Your task to perform on an android device: turn notification dots off Image 0: 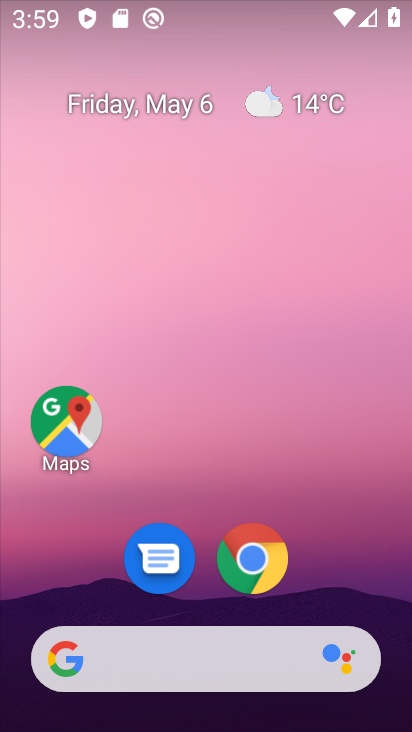
Step 0: drag from (358, 504) to (287, 59)
Your task to perform on an android device: turn notification dots off Image 1: 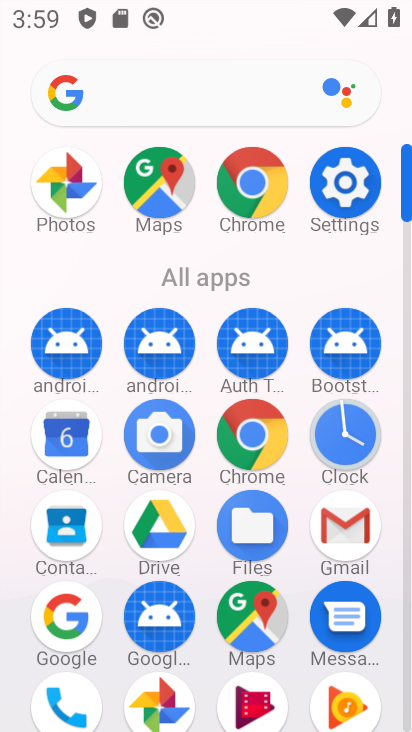
Step 1: click (348, 194)
Your task to perform on an android device: turn notification dots off Image 2: 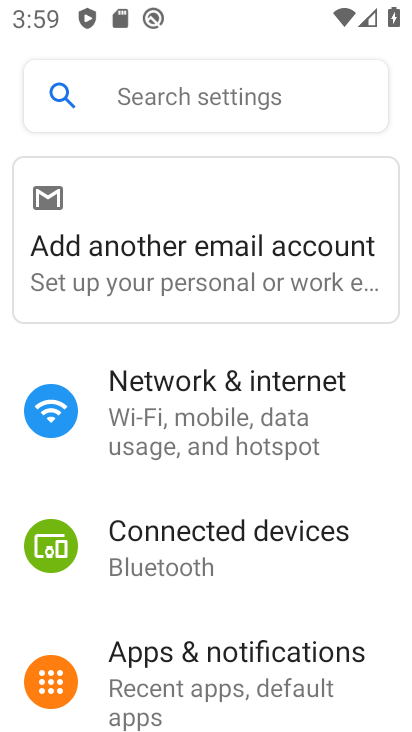
Step 2: click (289, 656)
Your task to perform on an android device: turn notification dots off Image 3: 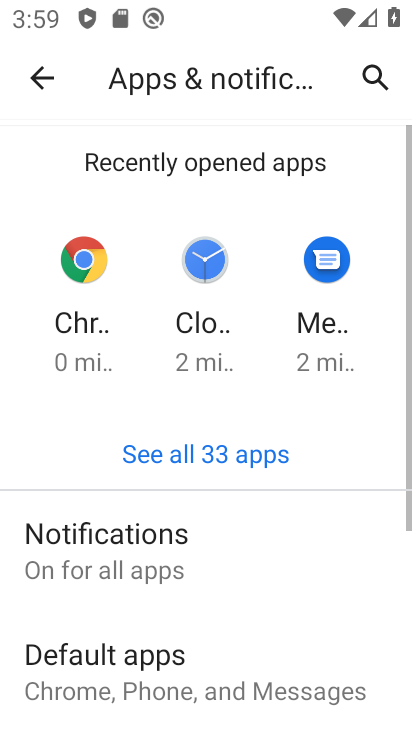
Step 3: drag from (210, 674) to (199, 178)
Your task to perform on an android device: turn notification dots off Image 4: 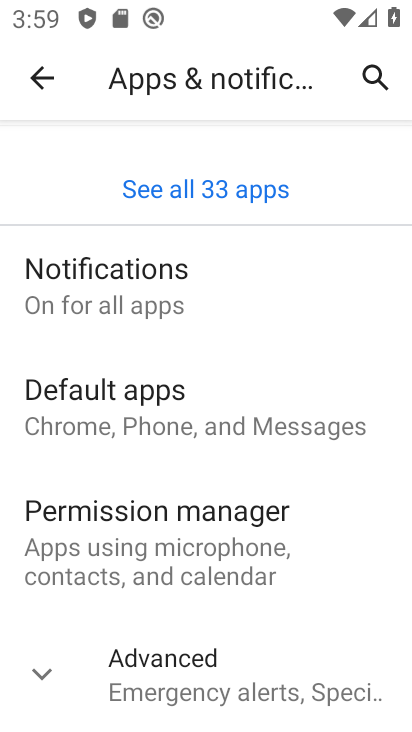
Step 4: click (224, 670)
Your task to perform on an android device: turn notification dots off Image 5: 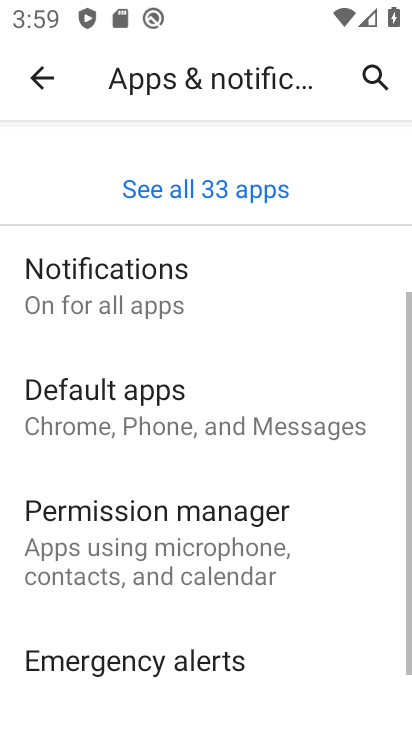
Step 5: click (86, 293)
Your task to perform on an android device: turn notification dots off Image 6: 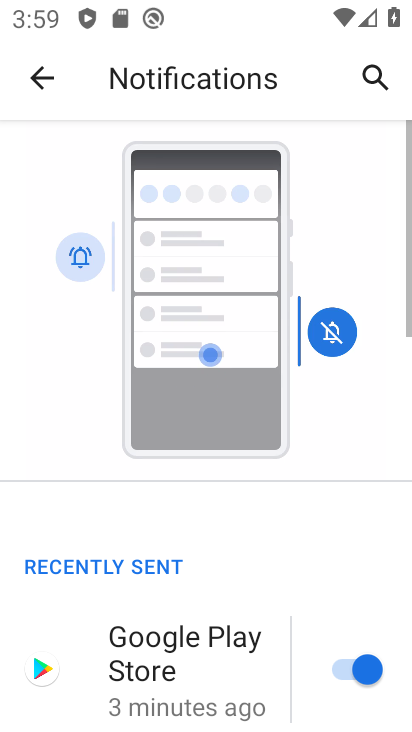
Step 6: drag from (243, 676) to (237, 89)
Your task to perform on an android device: turn notification dots off Image 7: 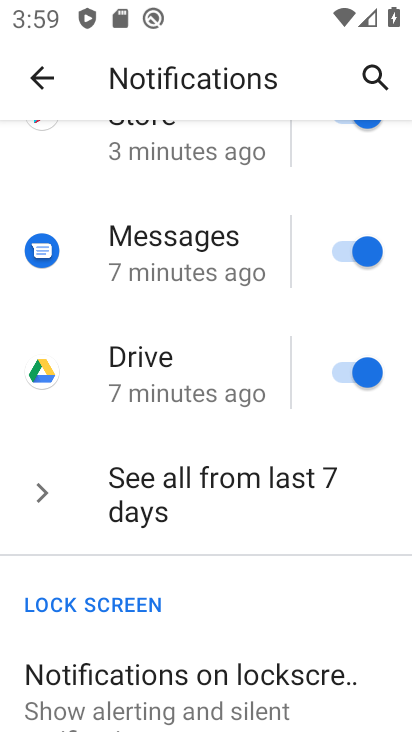
Step 7: drag from (200, 707) to (228, 261)
Your task to perform on an android device: turn notification dots off Image 8: 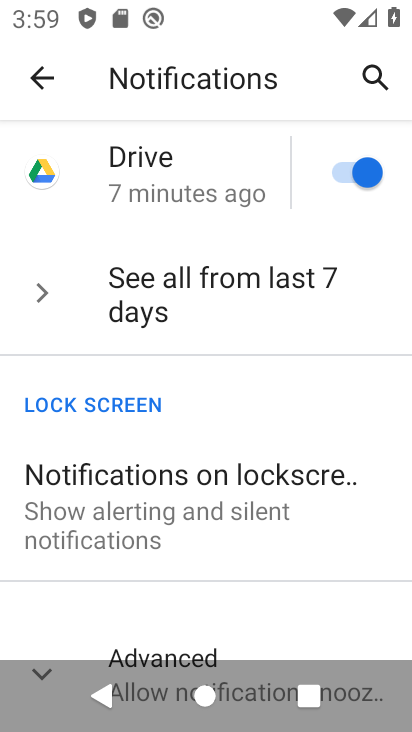
Step 8: click (212, 647)
Your task to perform on an android device: turn notification dots off Image 9: 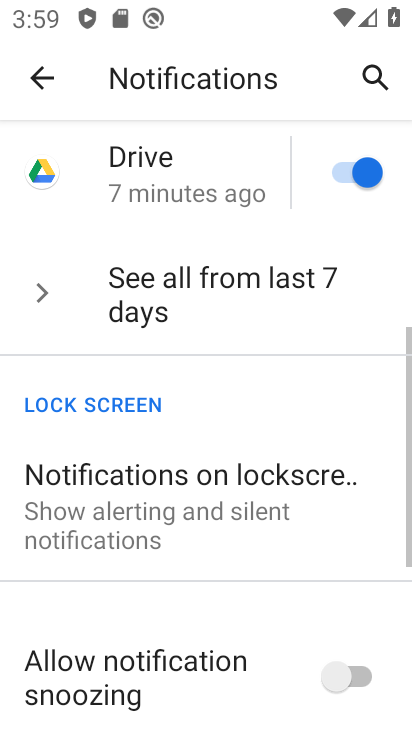
Step 9: drag from (267, 663) to (310, 310)
Your task to perform on an android device: turn notification dots off Image 10: 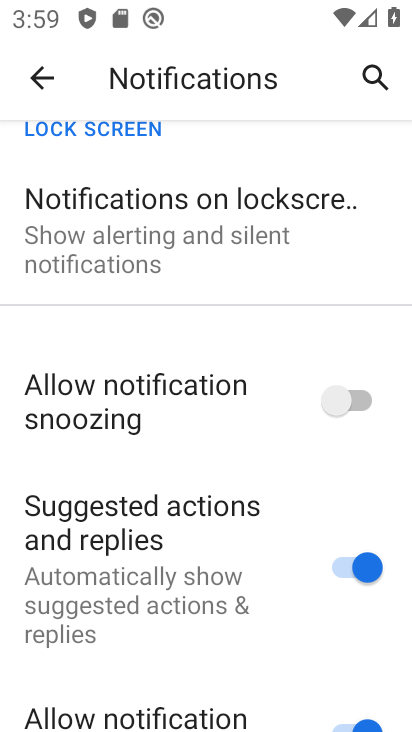
Step 10: drag from (293, 655) to (307, 344)
Your task to perform on an android device: turn notification dots off Image 11: 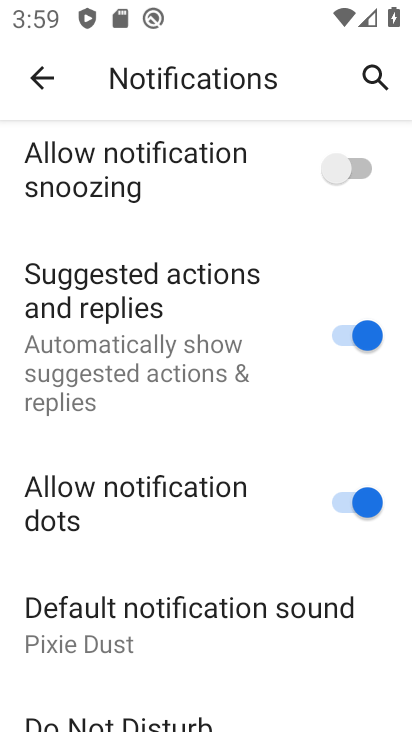
Step 11: click (339, 496)
Your task to perform on an android device: turn notification dots off Image 12: 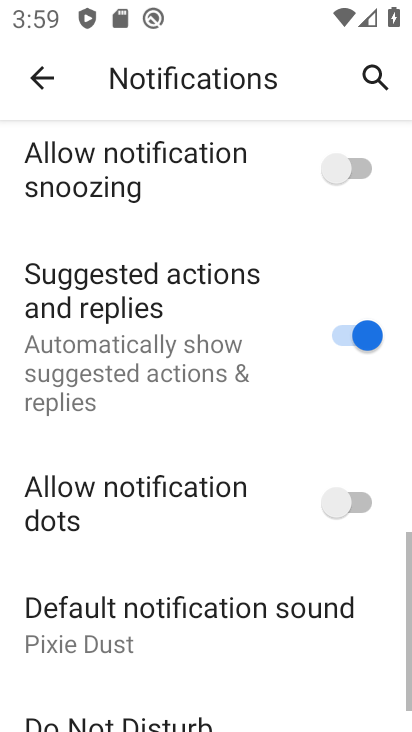
Step 12: task complete